Your task to perform on an android device: allow notifications from all sites in the chrome app Image 0: 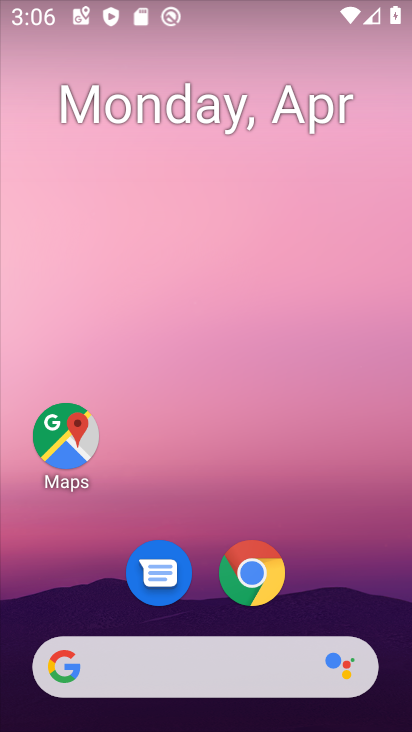
Step 0: drag from (355, 587) to (363, 50)
Your task to perform on an android device: allow notifications from all sites in the chrome app Image 1: 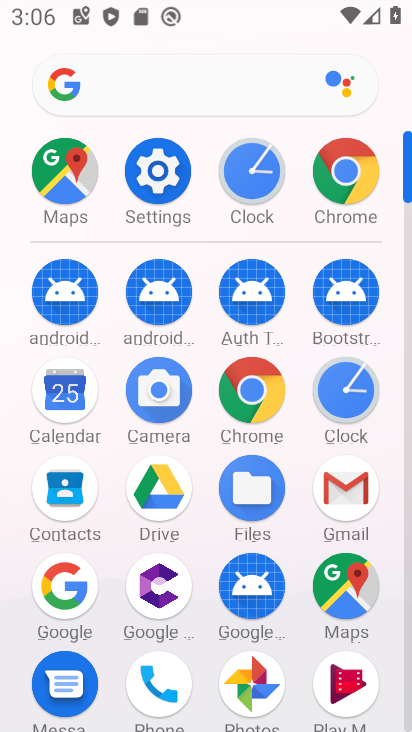
Step 1: click (353, 173)
Your task to perform on an android device: allow notifications from all sites in the chrome app Image 2: 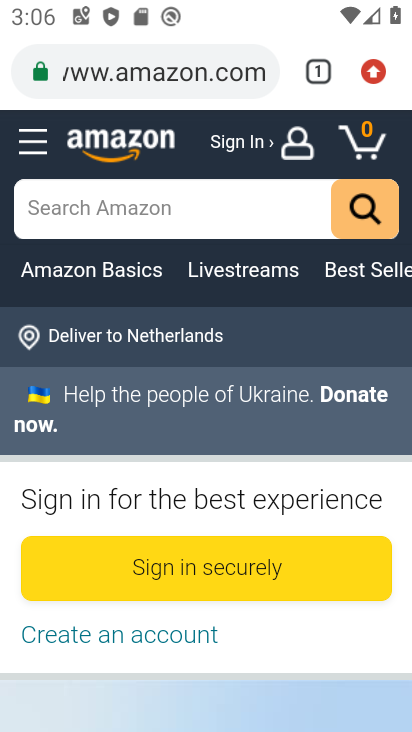
Step 2: click (381, 72)
Your task to perform on an android device: allow notifications from all sites in the chrome app Image 3: 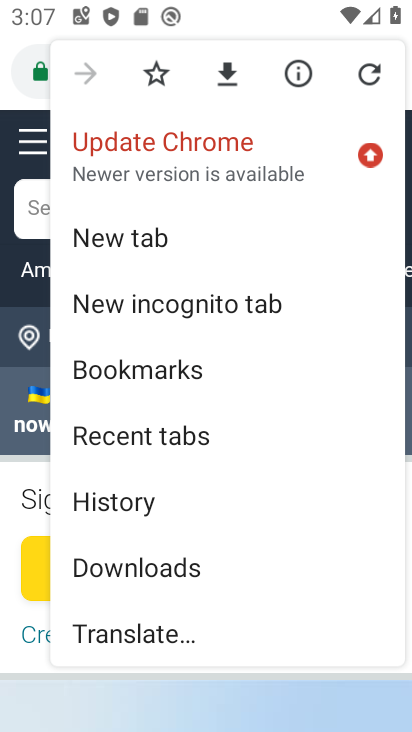
Step 3: drag from (298, 596) to (308, 248)
Your task to perform on an android device: allow notifications from all sites in the chrome app Image 4: 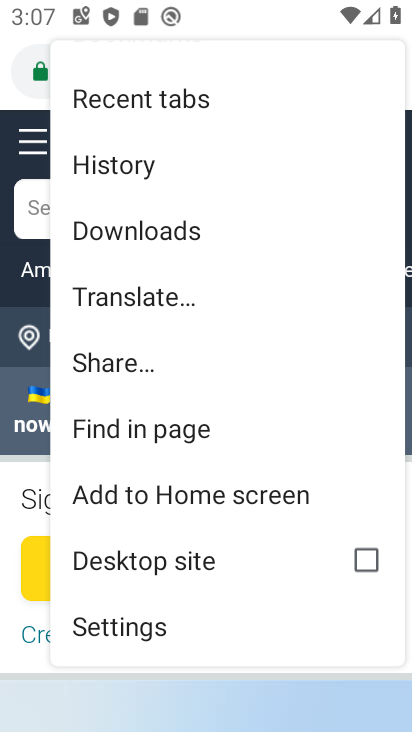
Step 4: drag from (275, 591) to (276, 307)
Your task to perform on an android device: allow notifications from all sites in the chrome app Image 5: 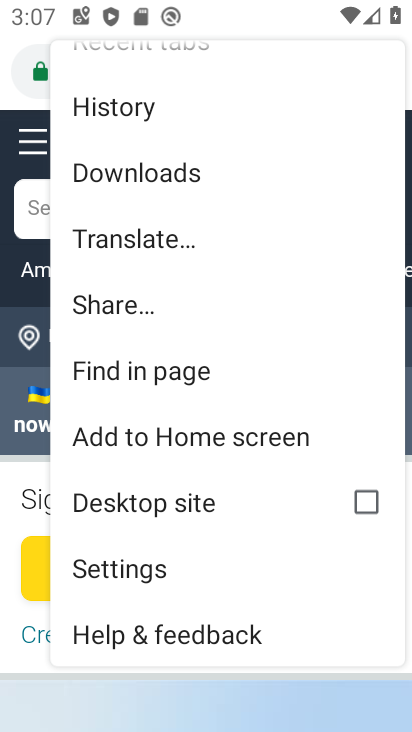
Step 5: click (145, 573)
Your task to perform on an android device: allow notifications from all sites in the chrome app Image 6: 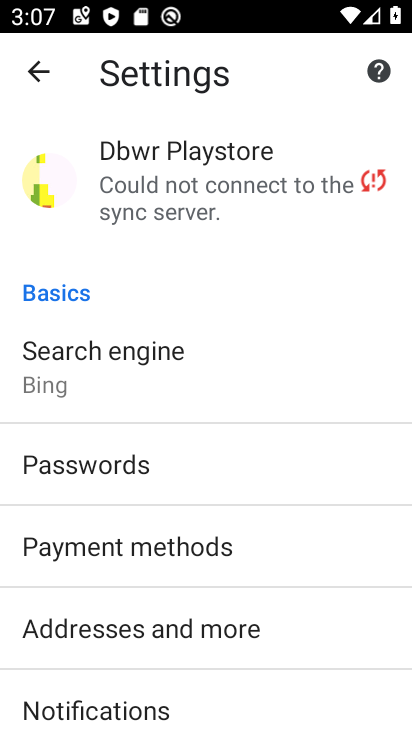
Step 6: drag from (325, 626) to (316, 487)
Your task to perform on an android device: allow notifications from all sites in the chrome app Image 7: 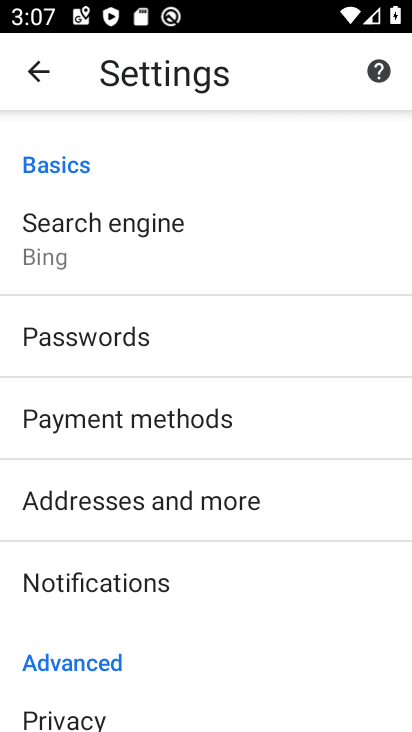
Step 7: drag from (311, 605) to (315, 459)
Your task to perform on an android device: allow notifications from all sites in the chrome app Image 8: 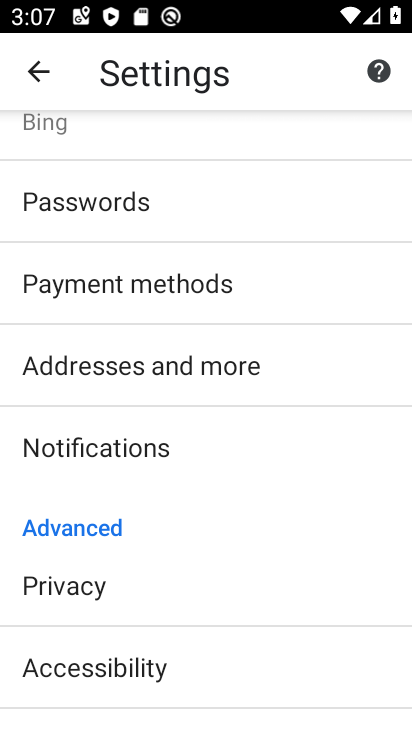
Step 8: drag from (320, 655) to (330, 373)
Your task to perform on an android device: allow notifications from all sites in the chrome app Image 9: 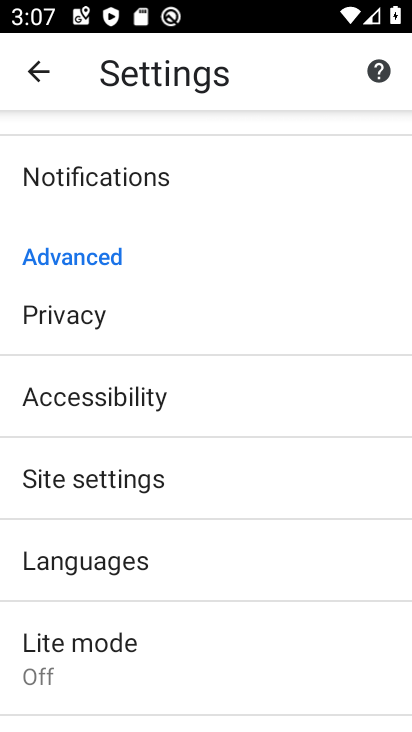
Step 9: drag from (317, 604) to (314, 394)
Your task to perform on an android device: allow notifications from all sites in the chrome app Image 10: 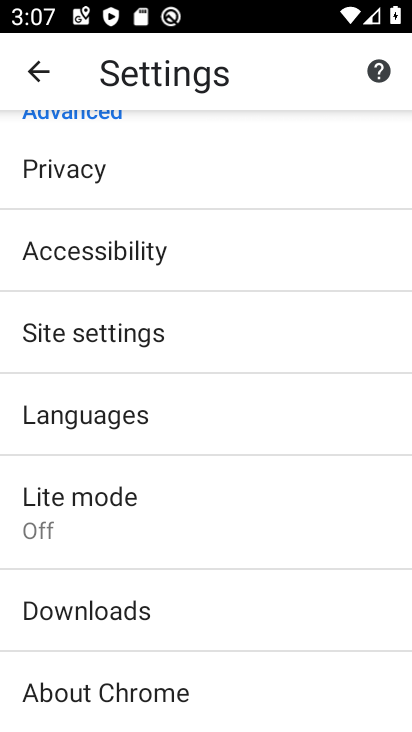
Step 10: click (251, 349)
Your task to perform on an android device: allow notifications from all sites in the chrome app Image 11: 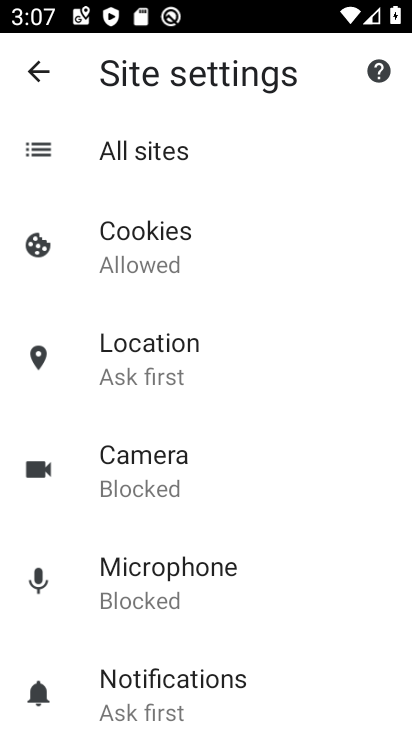
Step 11: drag from (342, 591) to (330, 415)
Your task to perform on an android device: allow notifications from all sites in the chrome app Image 12: 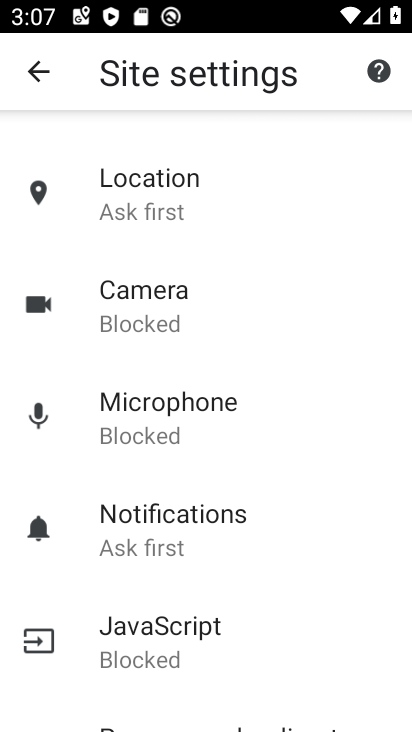
Step 12: drag from (339, 575) to (336, 433)
Your task to perform on an android device: allow notifications from all sites in the chrome app Image 13: 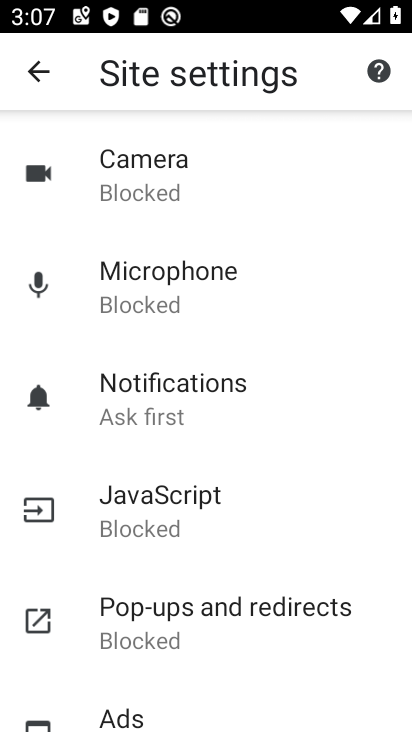
Step 13: drag from (356, 653) to (368, 500)
Your task to perform on an android device: allow notifications from all sites in the chrome app Image 14: 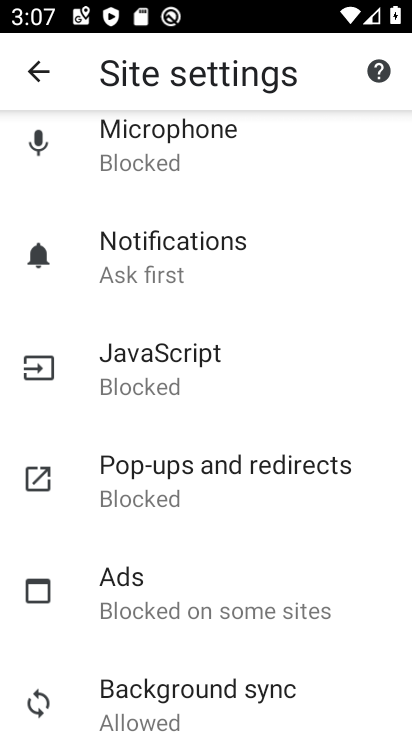
Step 14: drag from (348, 621) to (345, 484)
Your task to perform on an android device: allow notifications from all sites in the chrome app Image 15: 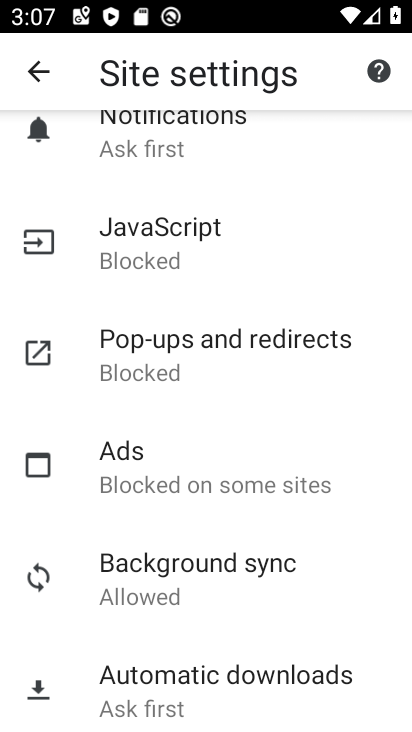
Step 15: drag from (361, 692) to (358, 471)
Your task to perform on an android device: allow notifications from all sites in the chrome app Image 16: 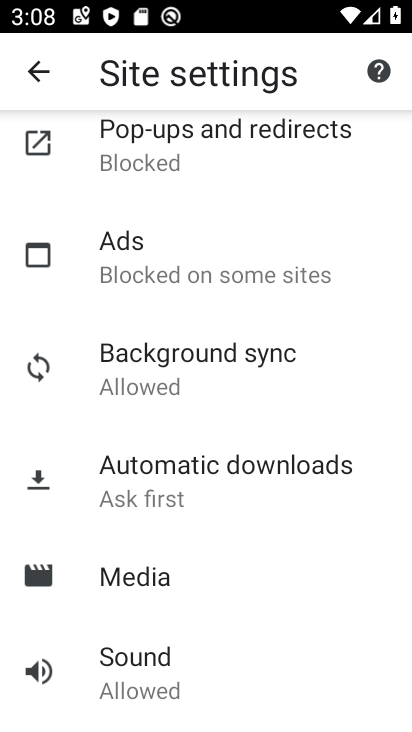
Step 16: drag from (366, 295) to (347, 591)
Your task to perform on an android device: allow notifications from all sites in the chrome app Image 17: 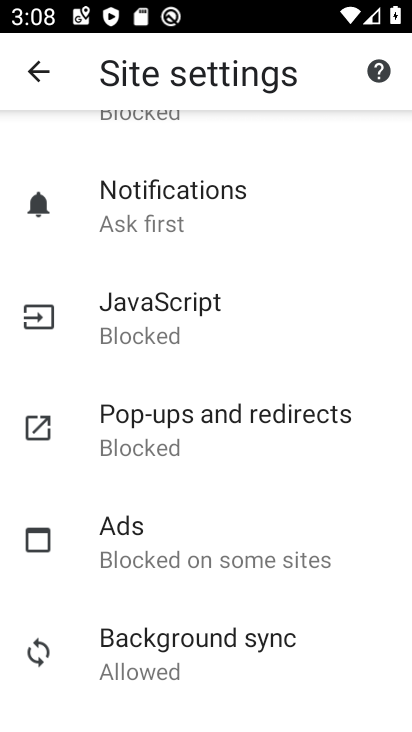
Step 17: drag from (364, 307) to (362, 507)
Your task to perform on an android device: allow notifications from all sites in the chrome app Image 18: 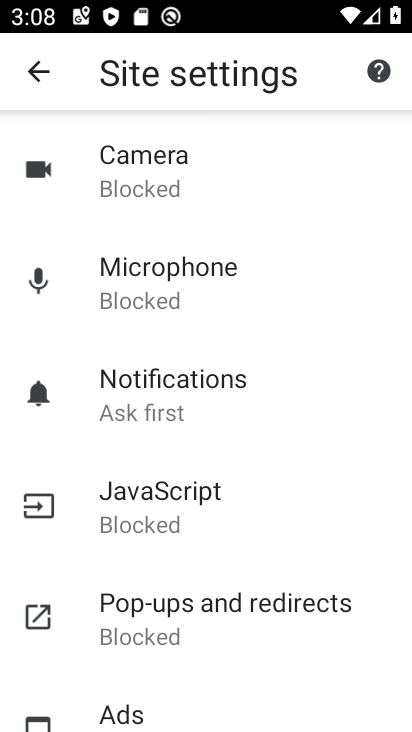
Step 18: click (205, 407)
Your task to perform on an android device: allow notifications from all sites in the chrome app Image 19: 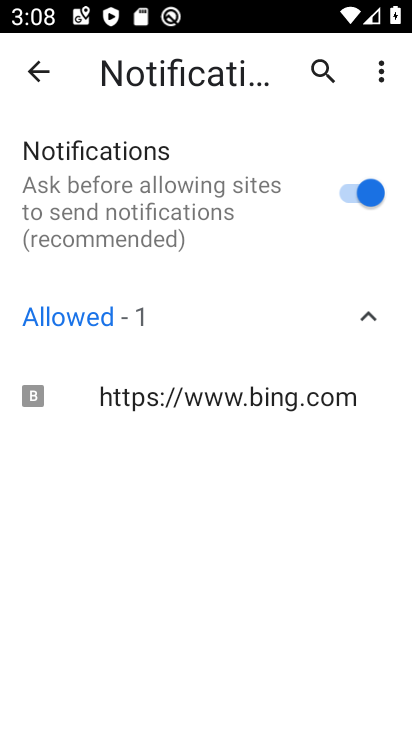
Step 19: task complete